Your task to perform on an android device: Go to settings Image 0: 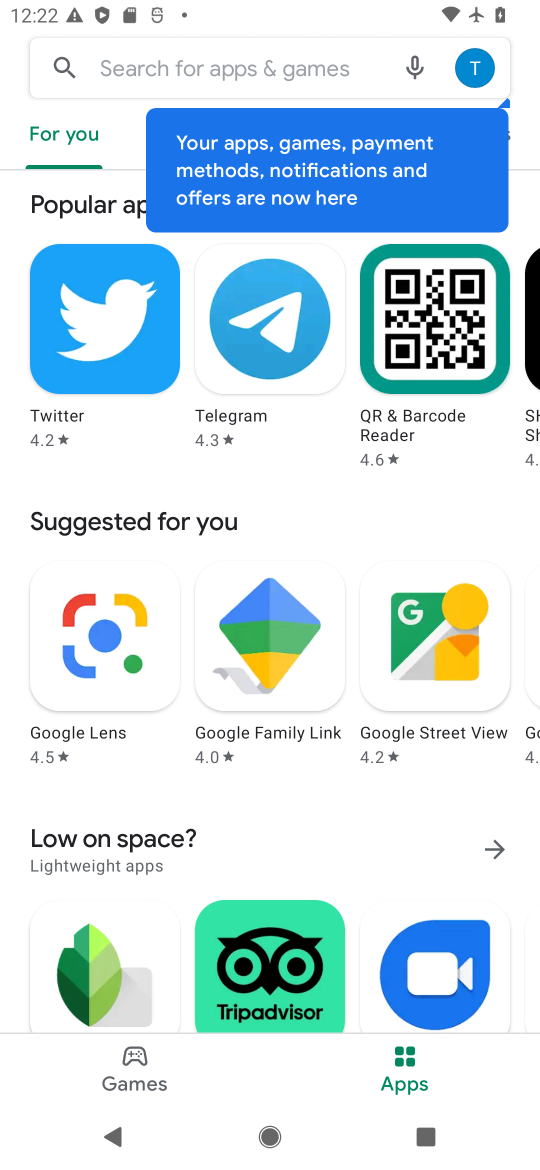
Step 0: press home button
Your task to perform on an android device: Go to settings Image 1: 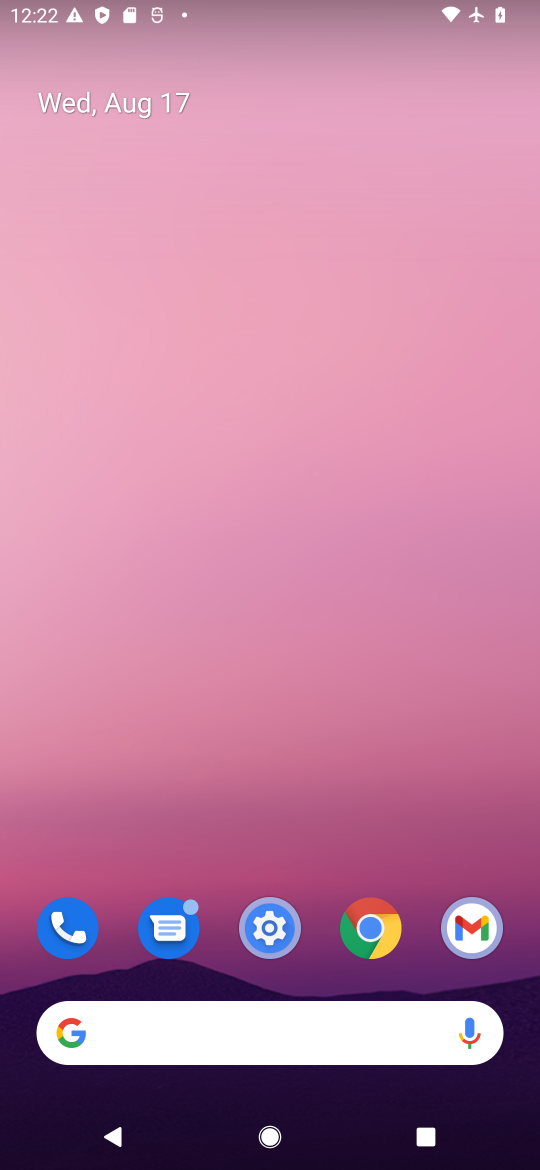
Step 1: click (243, 920)
Your task to perform on an android device: Go to settings Image 2: 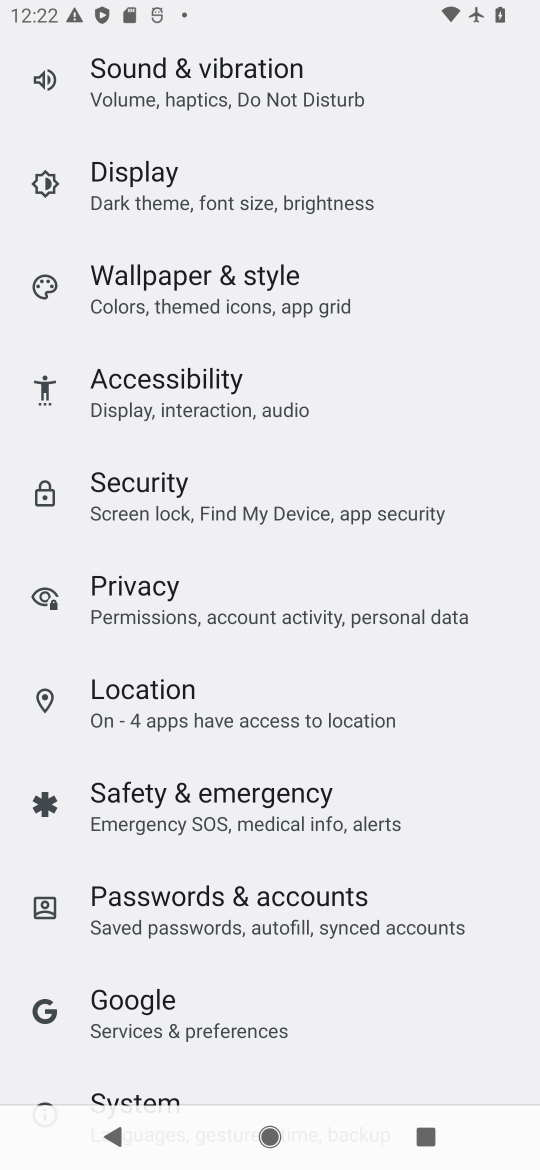
Step 2: task complete